Your task to perform on an android device: Go to Google Image 0: 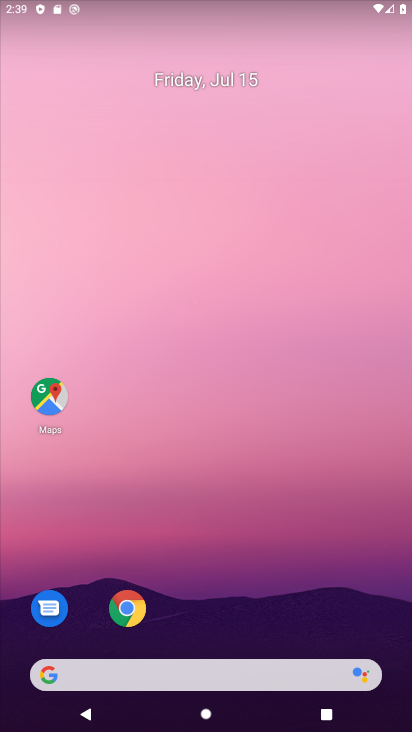
Step 0: drag from (210, 619) to (249, 105)
Your task to perform on an android device: Go to Google Image 1: 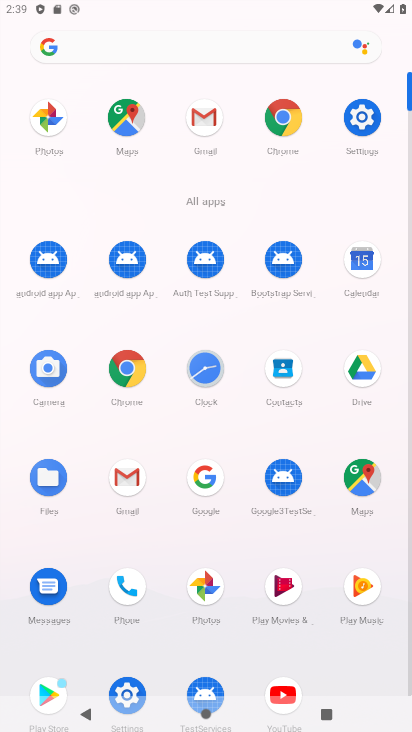
Step 1: click (198, 487)
Your task to perform on an android device: Go to Google Image 2: 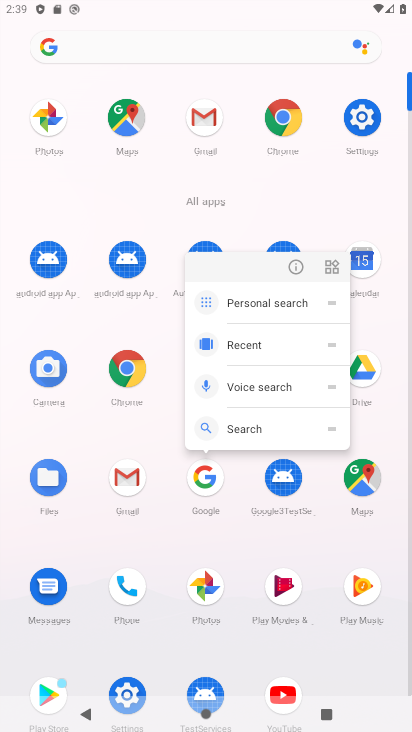
Step 2: click (205, 487)
Your task to perform on an android device: Go to Google Image 3: 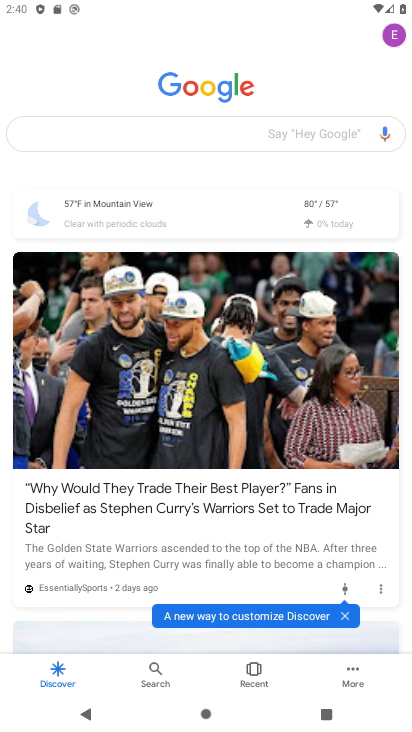
Step 3: task complete